Your task to perform on an android device: Do I have any events today? Image 0: 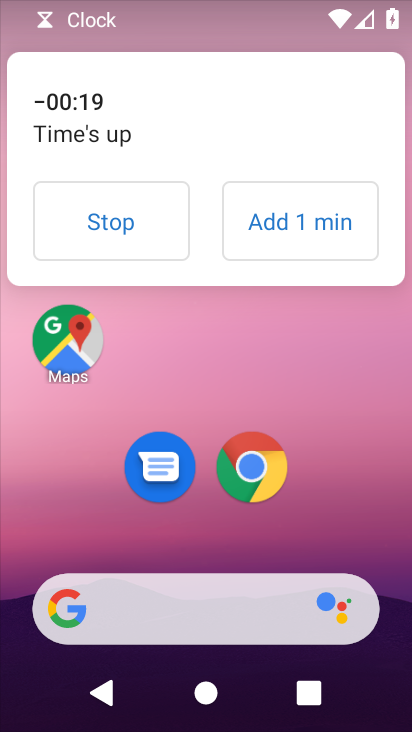
Step 0: click (126, 222)
Your task to perform on an android device: Do I have any events today? Image 1: 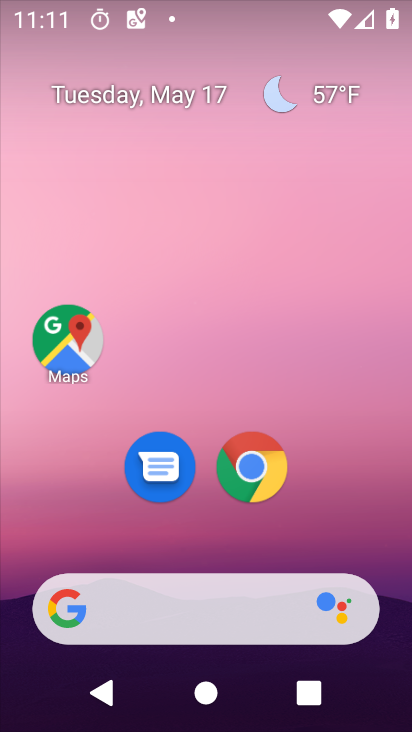
Step 1: drag from (226, 579) to (202, 137)
Your task to perform on an android device: Do I have any events today? Image 2: 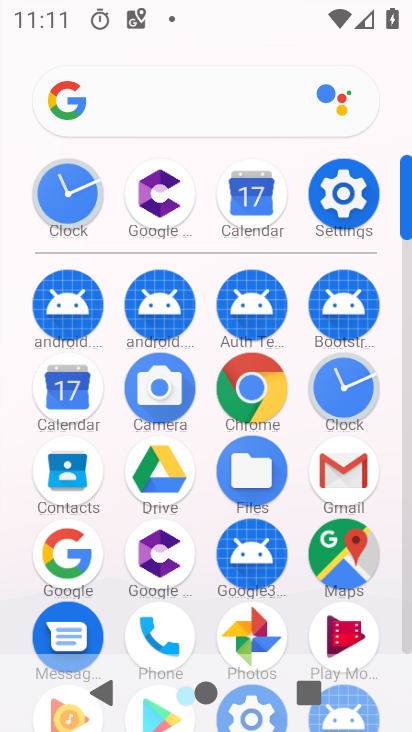
Step 2: click (49, 412)
Your task to perform on an android device: Do I have any events today? Image 3: 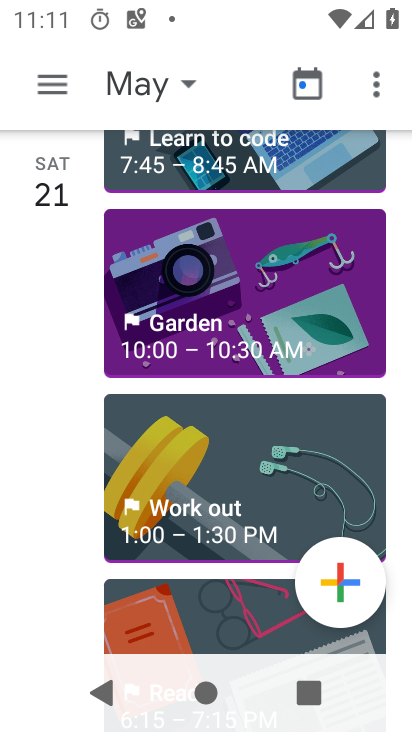
Step 3: drag from (201, 249) to (214, 609)
Your task to perform on an android device: Do I have any events today? Image 4: 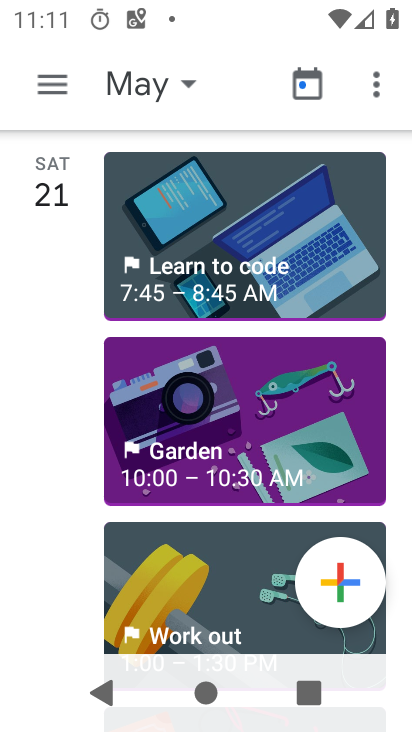
Step 4: drag from (221, 165) to (221, 596)
Your task to perform on an android device: Do I have any events today? Image 5: 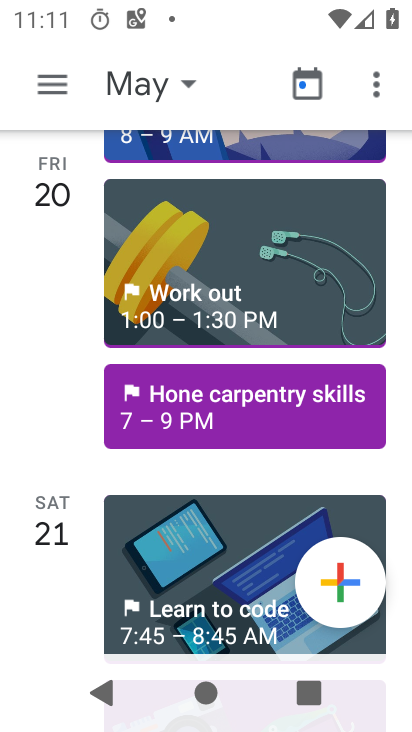
Step 5: drag from (201, 184) to (210, 586)
Your task to perform on an android device: Do I have any events today? Image 6: 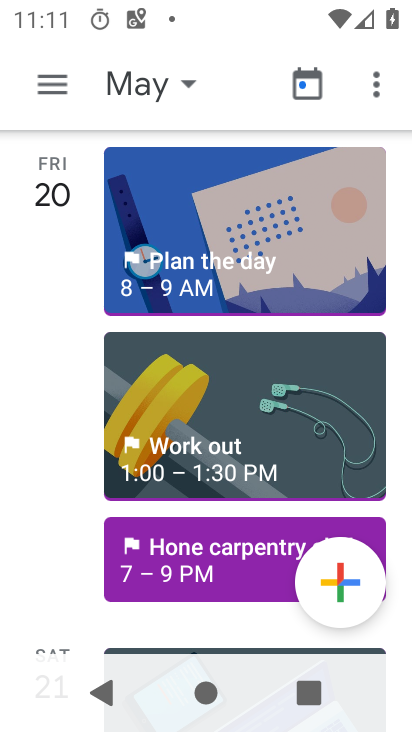
Step 6: drag from (211, 243) to (246, 572)
Your task to perform on an android device: Do I have any events today? Image 7: 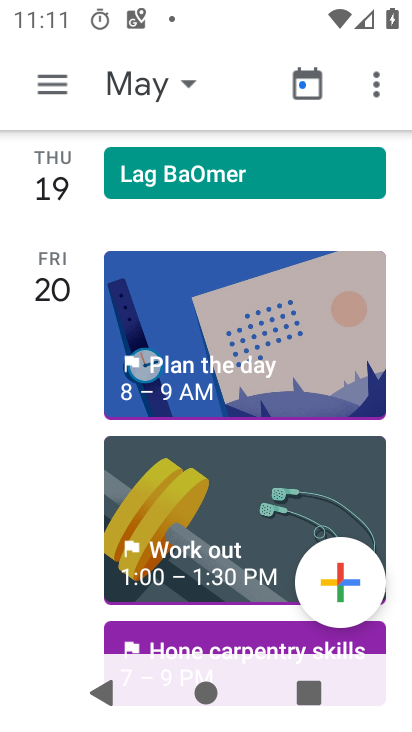
Step 7: drag from (243, 173) to (262, 615)
Your task to perform on an android device: Do I have any events today? Image 8: 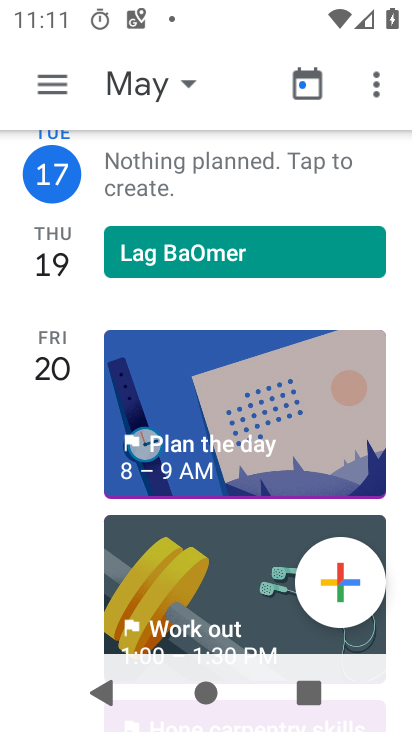
Step 8: drag from (228, 219) to (247, 569)
Your task to perform on an android device: Do I have any events today? Image 9: 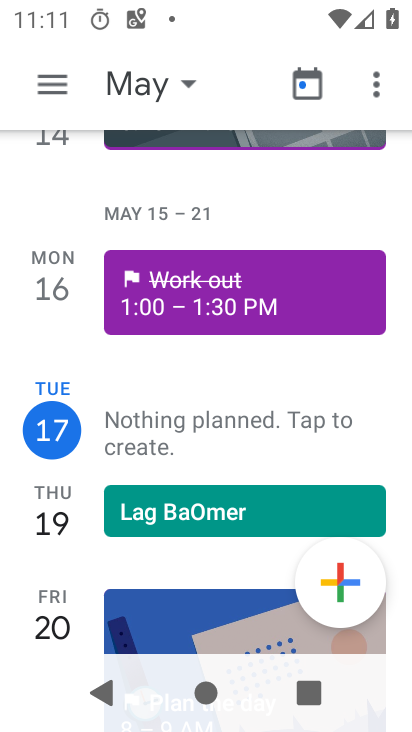
Step 9: drag from (172, 628) to (159, 375)
Your task to perform on an android device: Do I have any events today? Image 10: 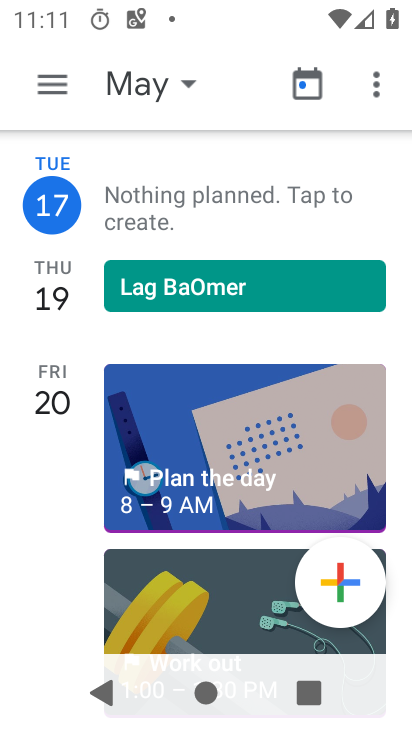
Step 10: click (208, 164)
Your task to perform on an android device: Do I have any events today? Image 11: 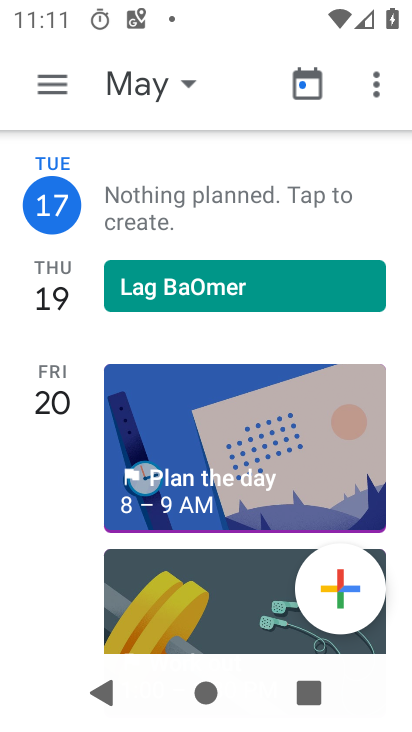
Step 11: drag from (253, 441) to (259, 482)
Your task to perform on an android device: Do I have any events today? Image 12: 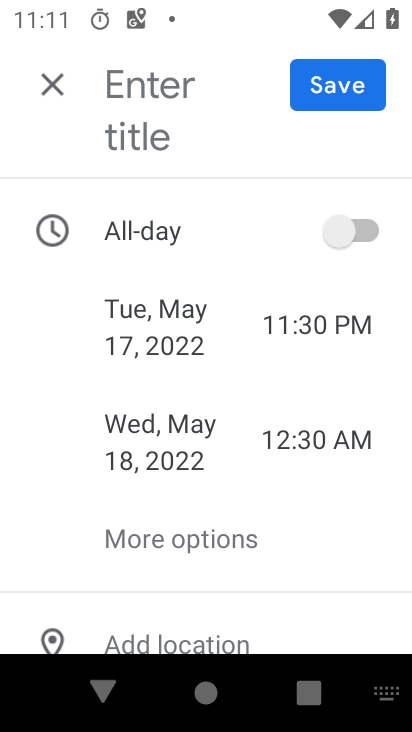
Step 12: click (50, 91)
Your task to perform on an android device: Do I have any events today? Image 13: 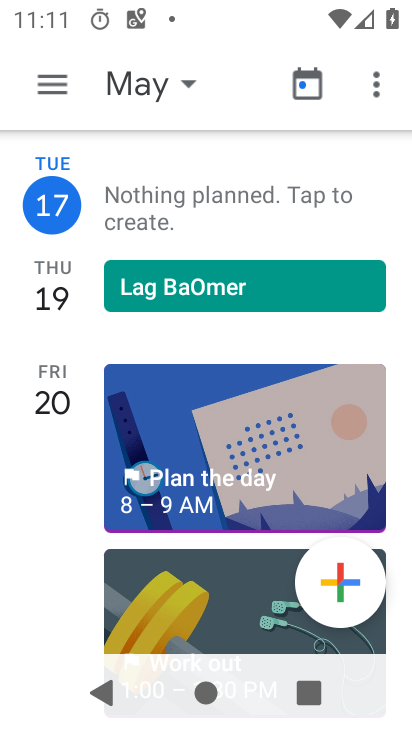
Step 13: click (173, 92)
Your task to perform on an android device: Do I have any events today? Image 14: 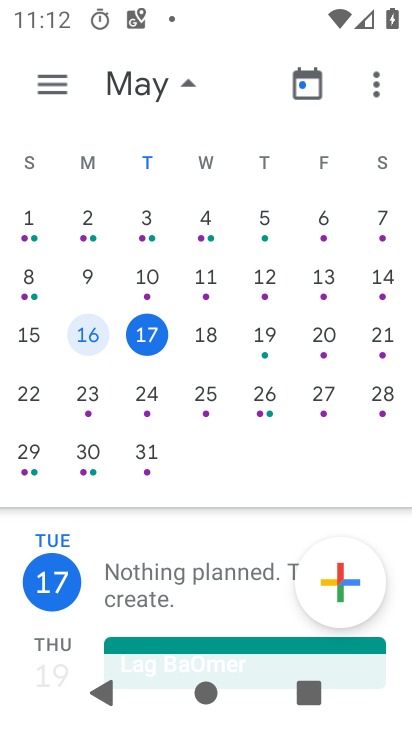
Step 14: click (209, 330)
Your task to perform on an android device: Do I have any events today? Image 15: 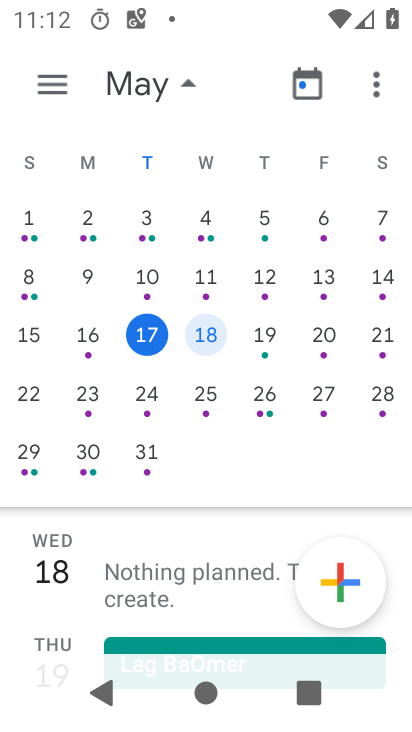
Step 15: task complete